Your task to perform on an android device: turn on location history Image 0: 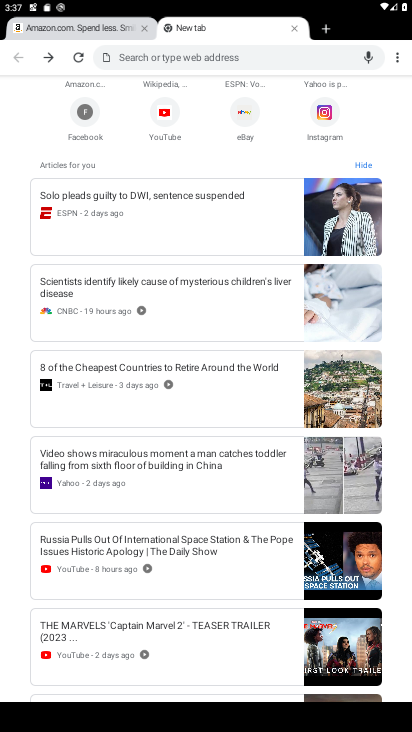
Step 0: press home button
Your task to perform on an android device: turn on location history Image 1: 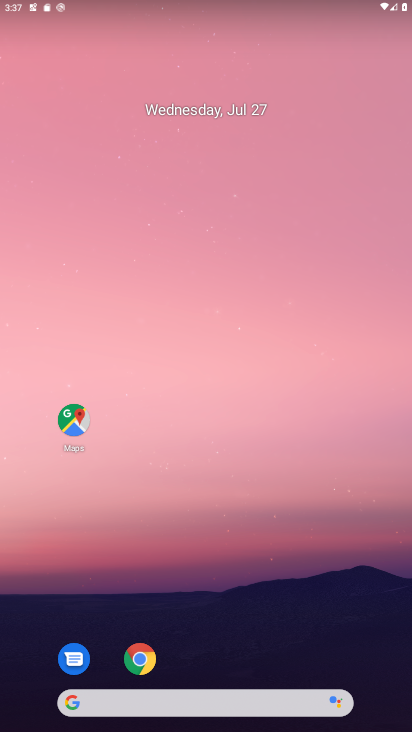
Step 1: drag from (343, 563) to (260, 22)
Your task to perform on an android device: turn on location history Image 2: 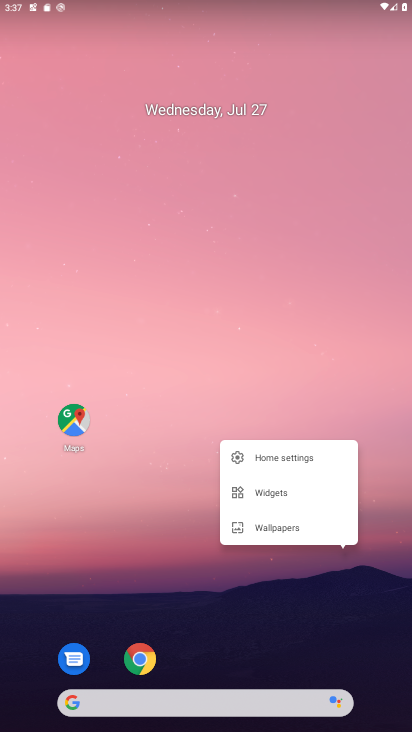
Step 2: click (249, 349)
Your task to perform on an android device: turn on location history Image 3: 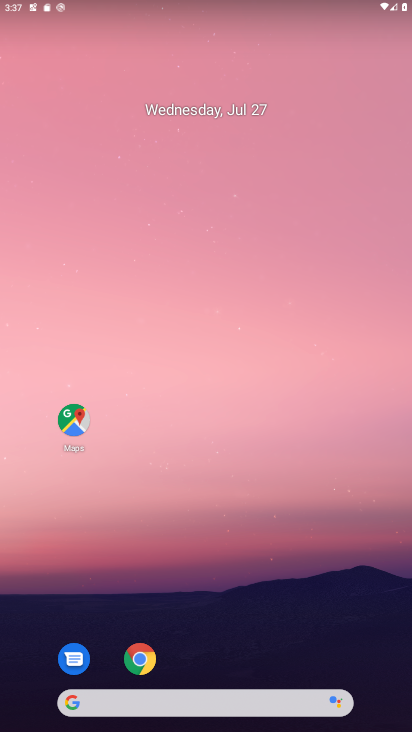
Step 3: drag from (244, 650) to (81, 0)
Your task to perform on an android device: turn on location history Image 4: 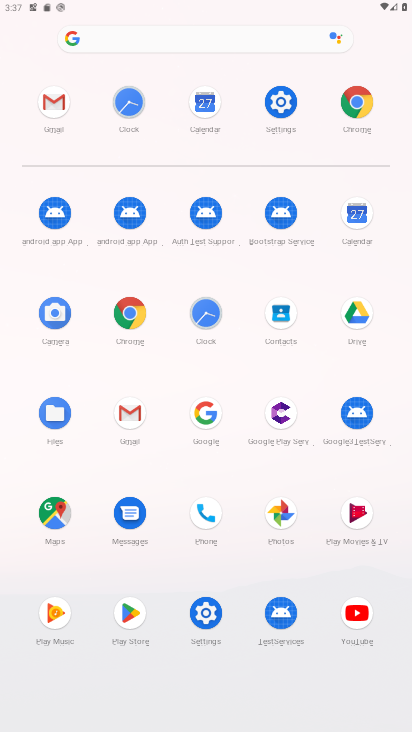
Step 4: click (272, 96)
Your task to perform on an android device: turn on location history Image 5: 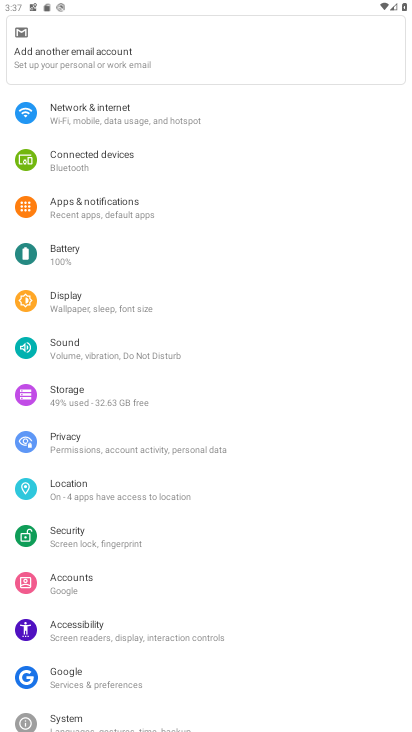
Step 5: click (79, 492)
Your task to perform on an android device: turn on location history Image 6: 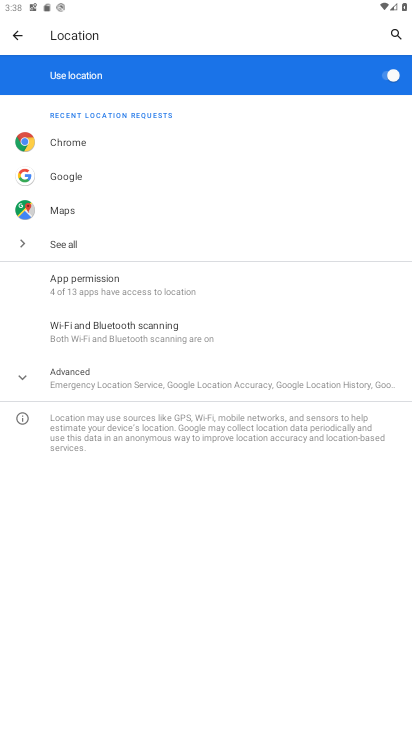
Step 6: click (63, 380)
Your task to perform on an android device: turn on location history Image 7: 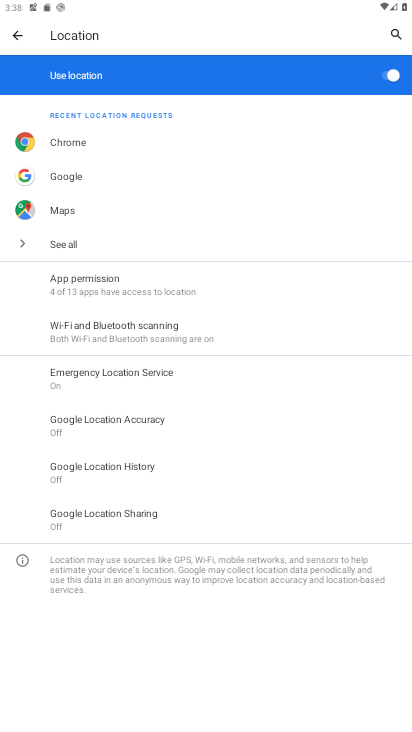
Step 7: click (98, 474)
Your task to perform on an android device: turn on location history Image 8: 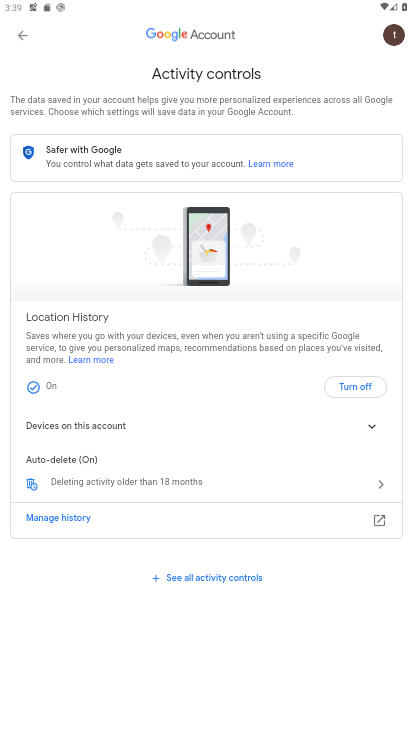
Step 8: task complete